Your task to perform on an android device: Open Google Chrome and open the bookmarks view Image 0: 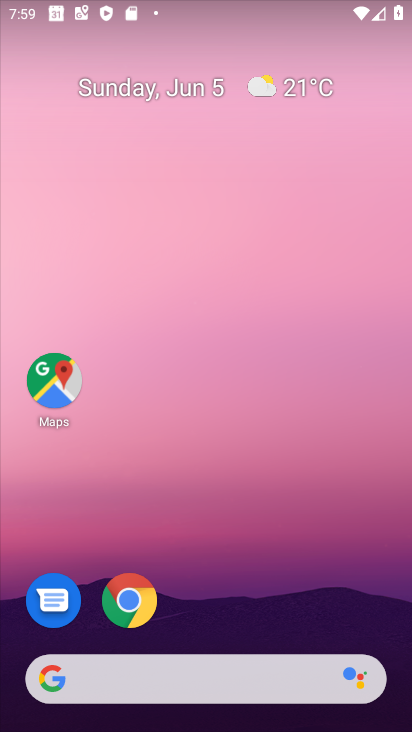
Step 0: click (141, 614)
Your task to perform on an android device: Open Google Chrome and open the bookmarks view Image 1: 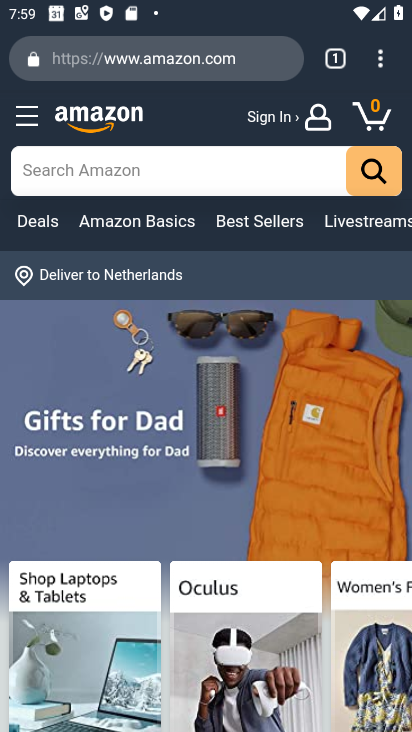
Step 1: click (385, 70)
Your task to perform on an android device: Open Google Chrome and open the bookmarks view Image 2: 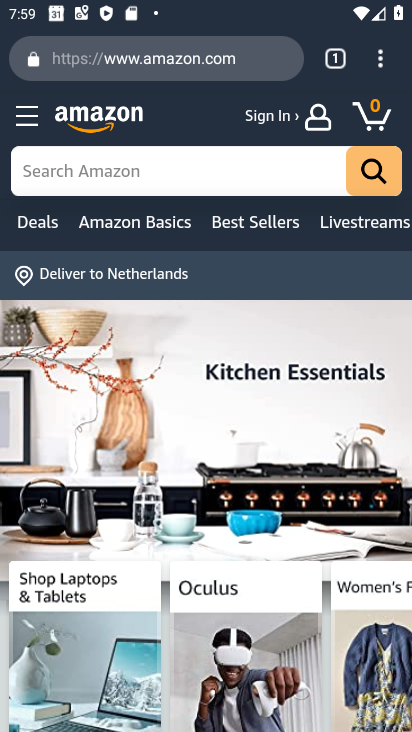
Step 2: click (379, 56)
Your task to perform on an android device: Open Google Chrome and open the bookmarks view Image 3: 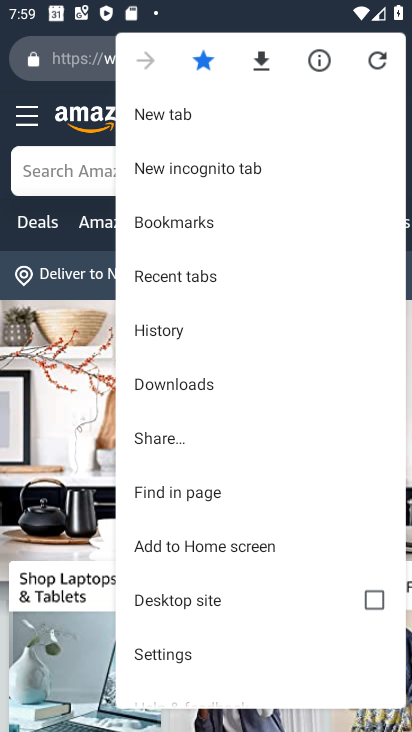
Step 3: click (184, 219)
Your task to perform on an android device: Open Google Chrome and open the bookmarks view Image 4: 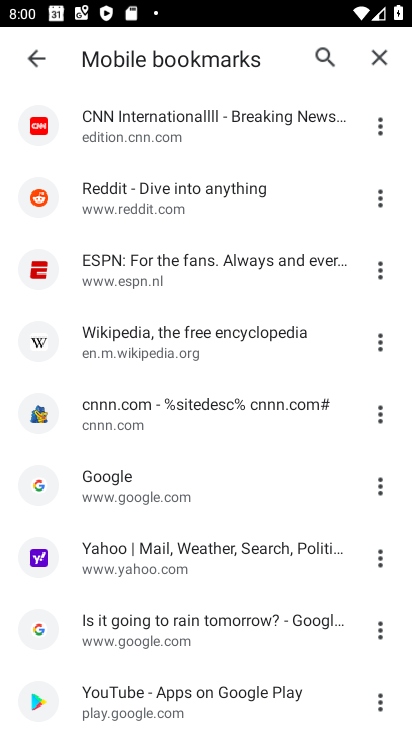
Step 4: task complete